Your task to perform on an android device: open device folders in google photos Image 0: 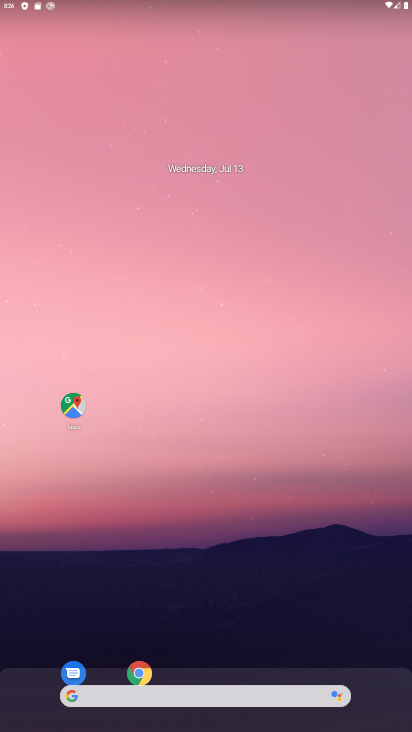
Step 0: drag from (209, 656) to (342, 184)
Your task to perform on an android device: open device folders in google photos Image 1: 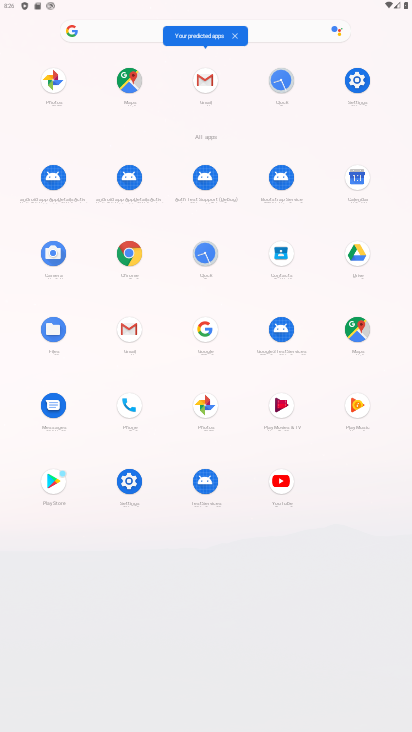
Step 1: click (52, 85)
Your task to perform on an android device: open device folders in google photos Image 2: 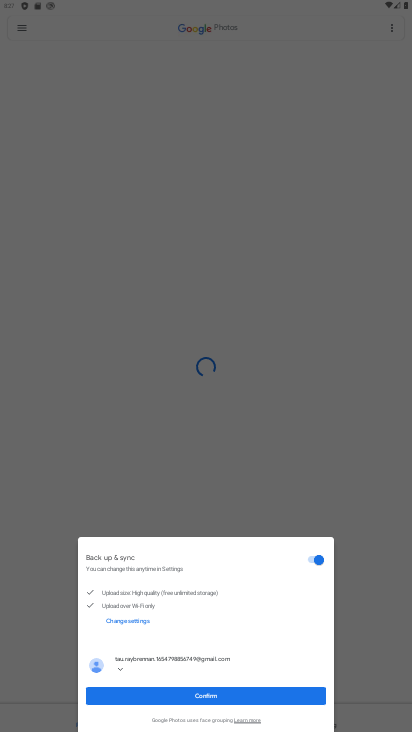
Step 2: click (227, 701)
Your task to perform on an android device: open device folders in google photos Image 3: 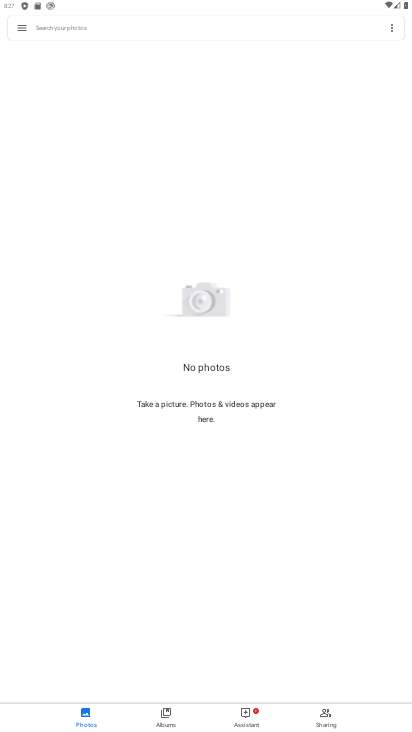
Step 3: click (22, 32)
Your task to perform on an android device: open device folders in google photos Image 4: 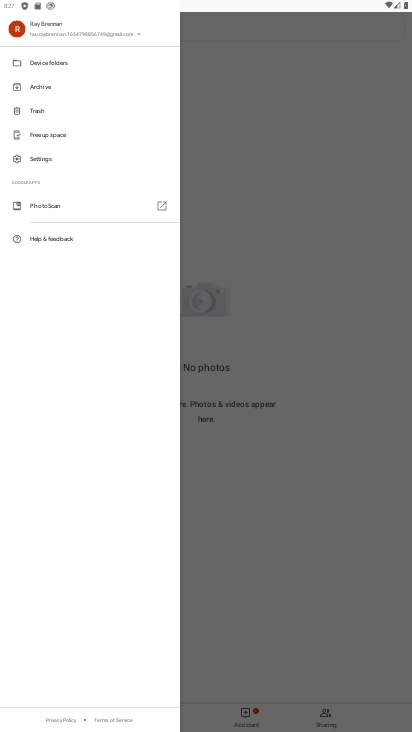
Step 4: click (74, 73)
Your task to perform on an android device: open device folders in google photos Image 5: 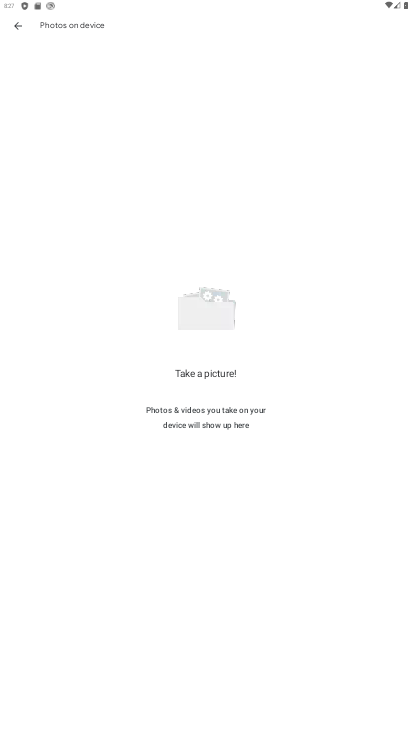
Step 5: task complete